Your task to perform on an android device: Open eBay Image 0: 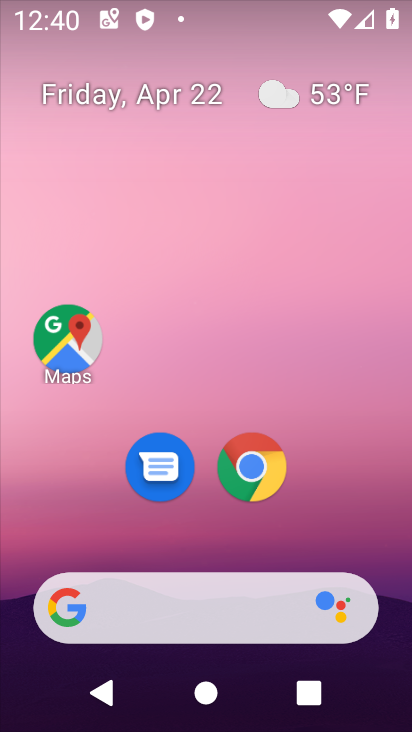
Step 0: click (252, 471)
Your task to perform on an android device: Open eBay Image 1: 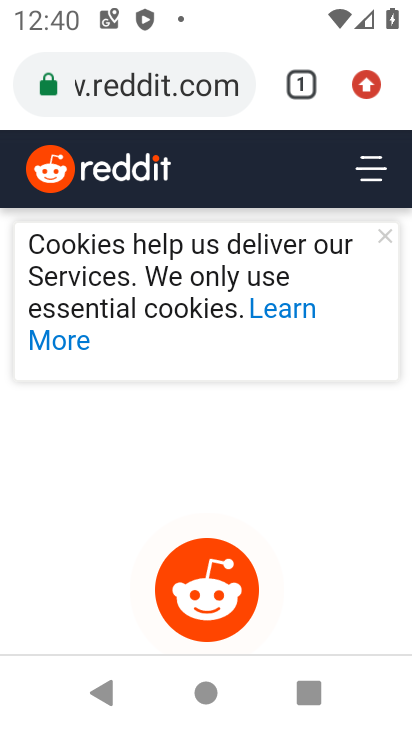
Step 1: click (148, 97)
Your task to perform on an android device: Open eBay Image 2: 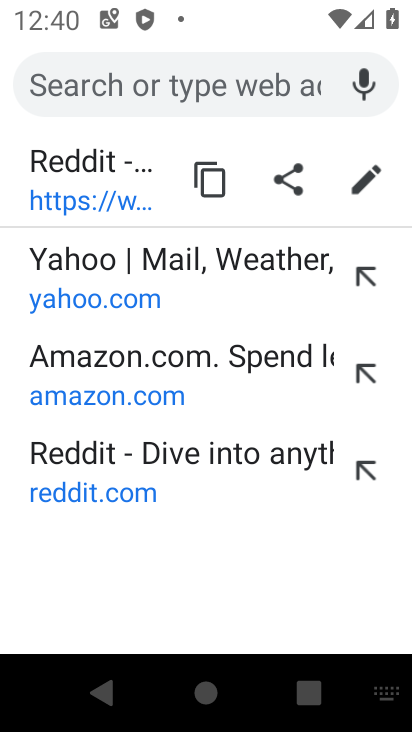
Step 2: type "ebay"
Your task to perform on an android device: Open eBay Image 3: 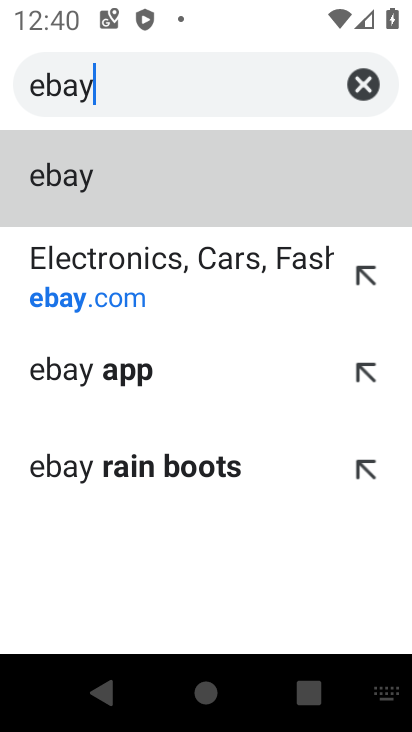
Step 3: click (87, 250)
Your task to perform on an android device: Open eBay Image 4: 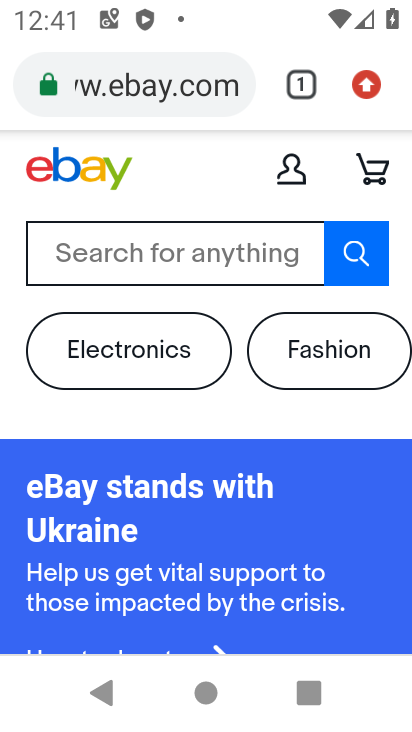
Step 4: task complete